Your task to perform on an android device: View the shopping cart on bestbuy. Add "logitech g910" to the cart on bestbuy Image 0: 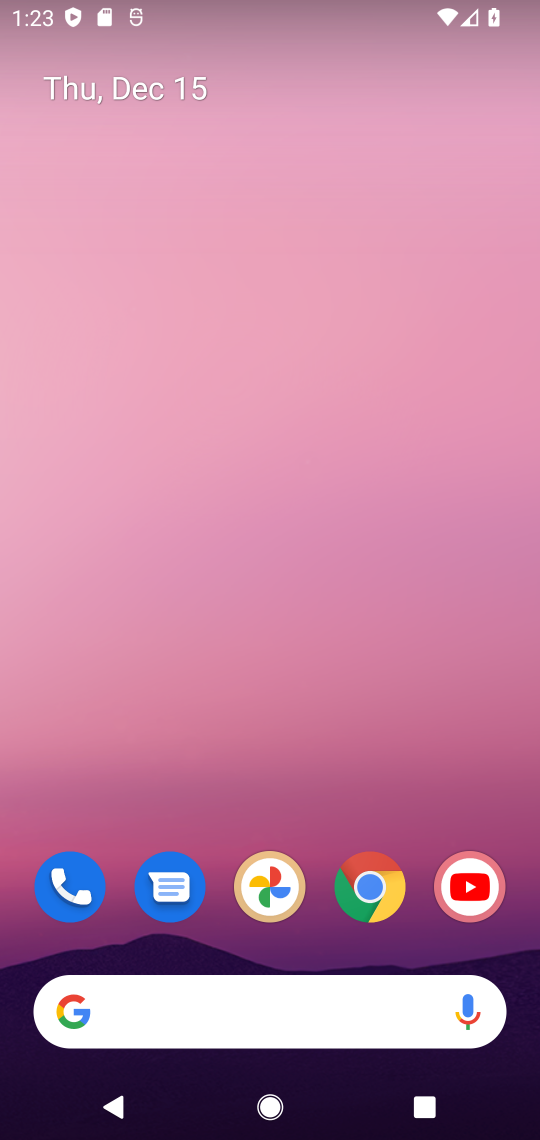
Step 0: click (362, 884)
Your task to perform on an android device: View the shopping cart on bestbuy. Add "logitech g910" to the cart on bestbuy Image 1: 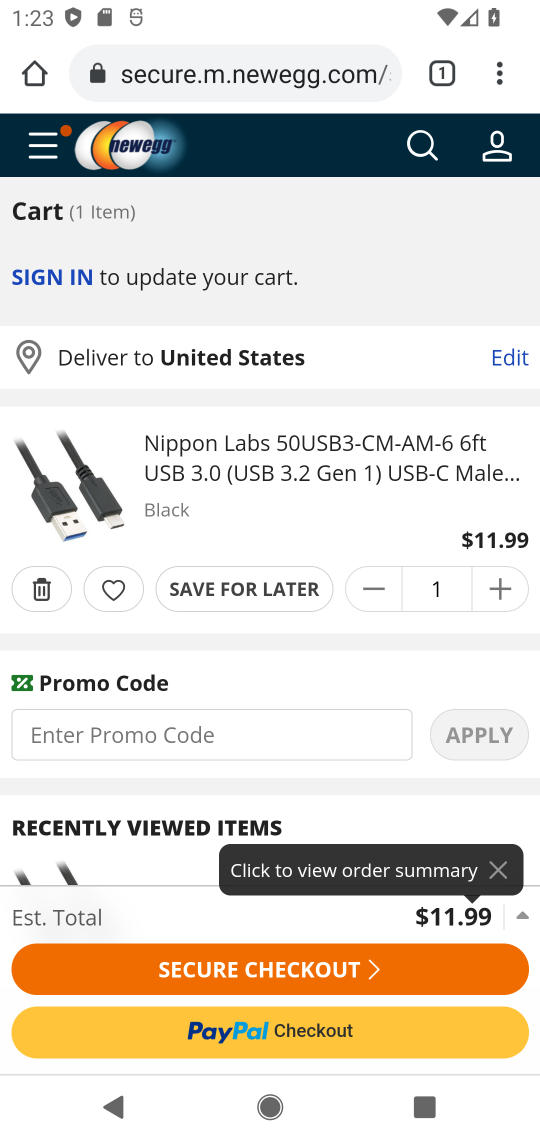
Step 1: click (207, 69)
Your task to perform on an android device: View the shopping cart on bestbuy. Add "logitech g910" to the cart on bestbuy Image 2: 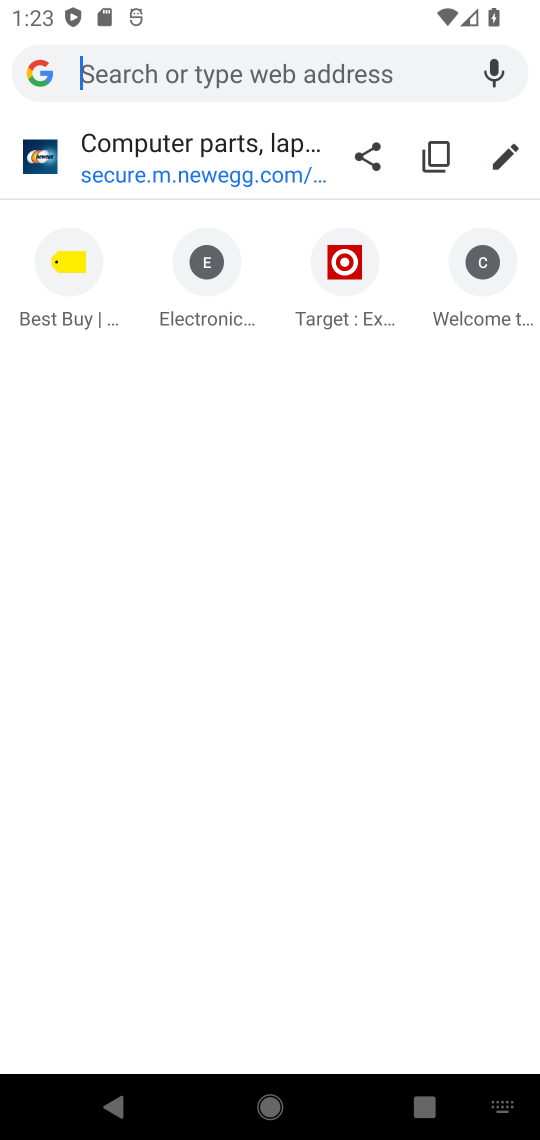
Step 2: click (43, 316)
Your task to perform on an android device: View the shopping cart on bestbuy. Add "logitech g910" to the cart on bestbuy Image 3: 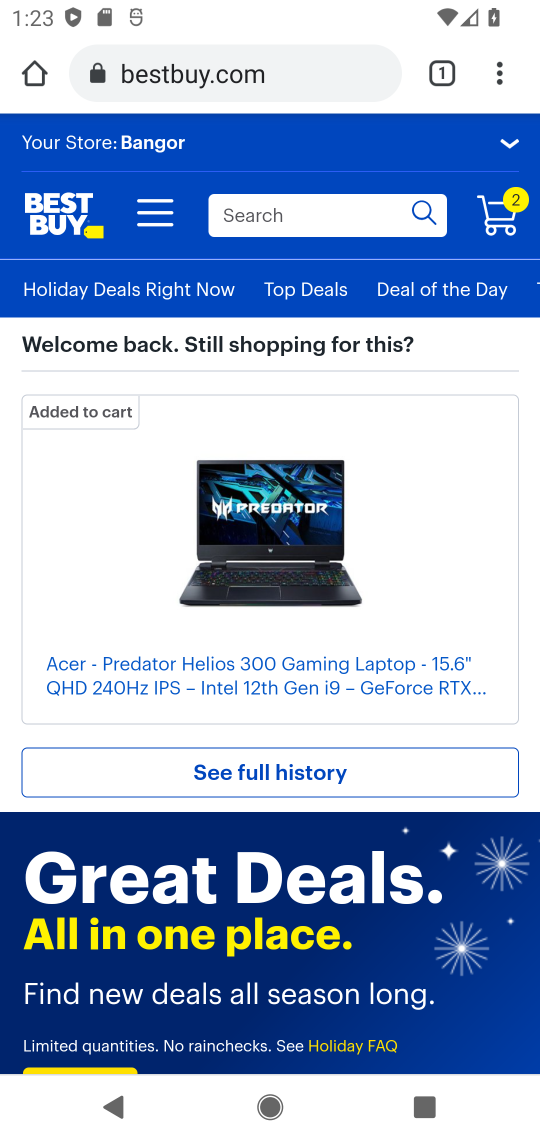
Step 3: click (487, 230)
Your task to perform on an android device: View the shopping cart on bestbuy. Add "logitech g910" to the cart on bestbuy Image 4: 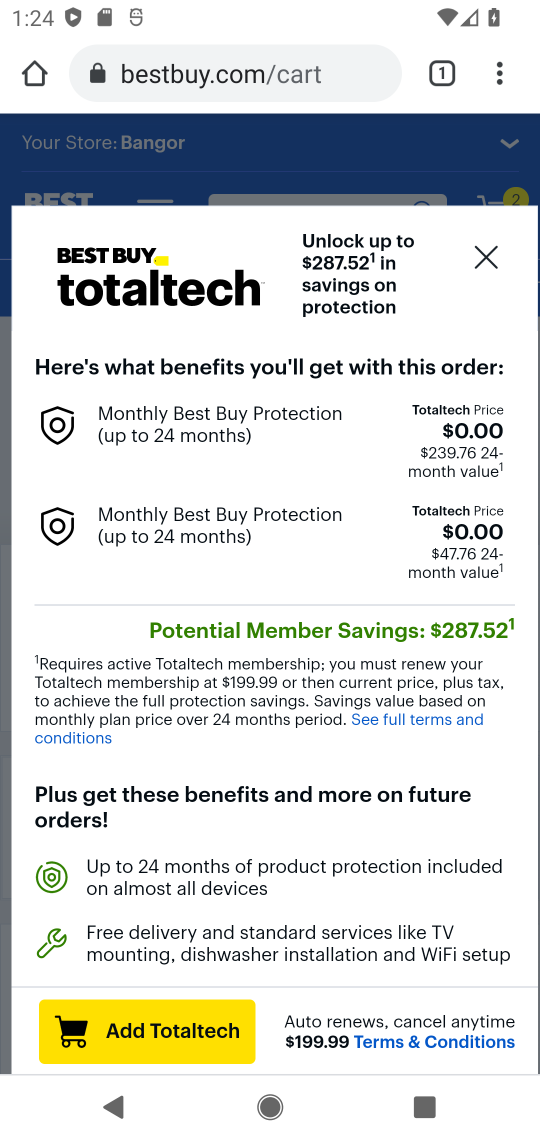
Step 4: click (490, 265)
Your task to perform on an android device: View the shopping cart on bestbuy. Add "logitech g910" to the cart on bestbuy Image 5: 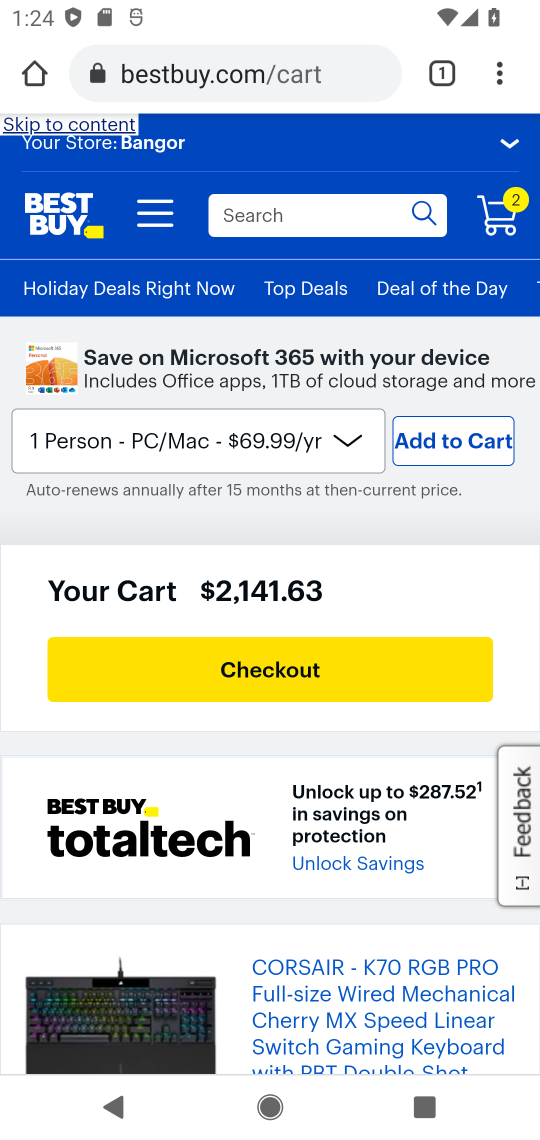
Step 5: click (246, 211)
Your task to perform on an android device: View the shopping cart on bestbuy. Add "logitech g910" to the cart on bestbuy Image 6: 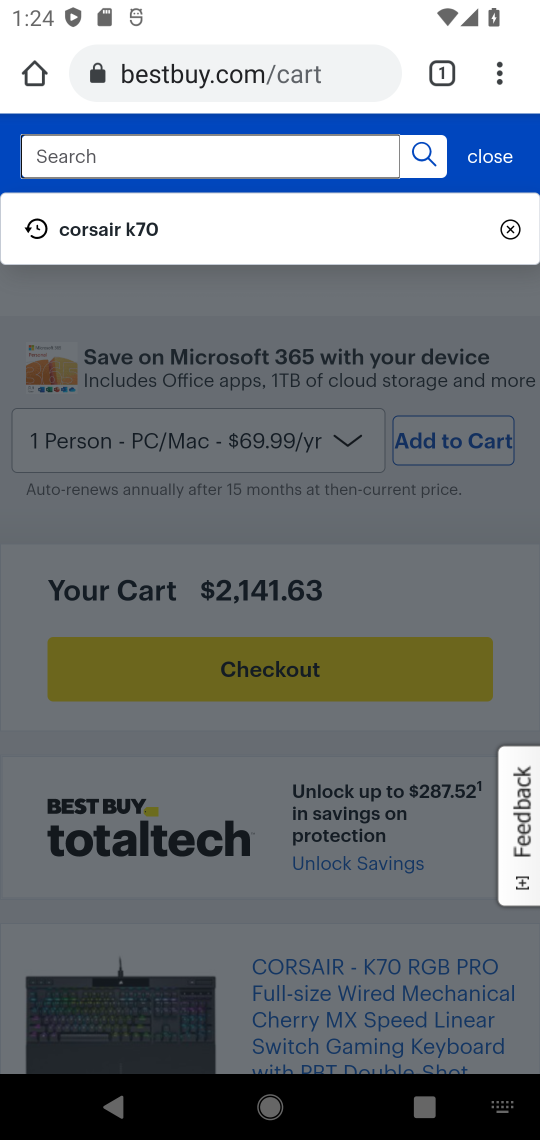
Step 6: type "logitech g910"
Your task to perform on an android device: View the shopping cart on bestbuy. Add "logitech g910" to the cart on bestbuy Image 7: 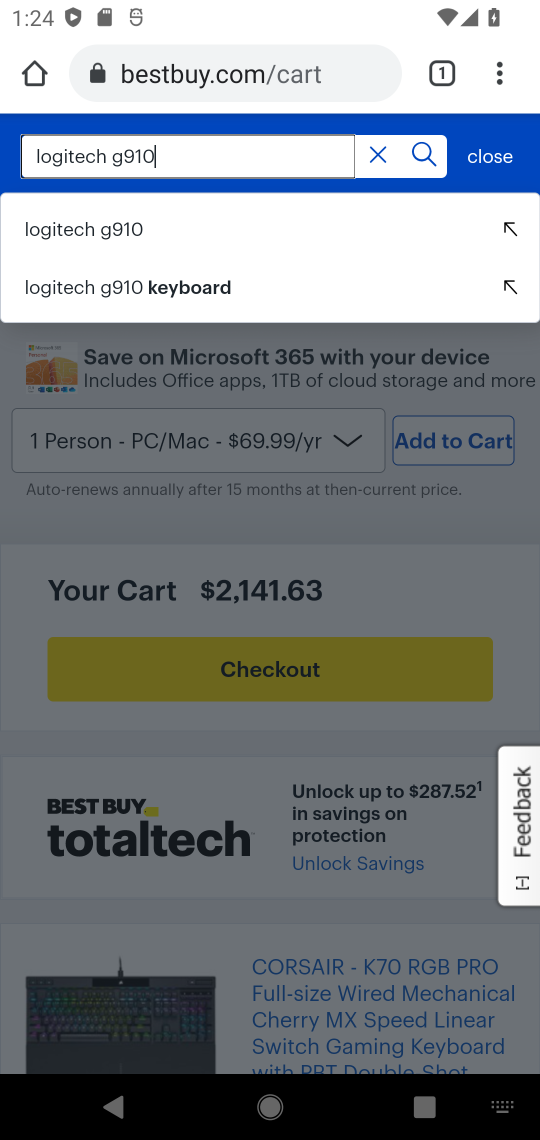
Step 7: click (102, 232)
Your task to perform on an android device: View the shopping cart on bestbuy. Add "logitech g910" to the cart on bestbuy Image 8: 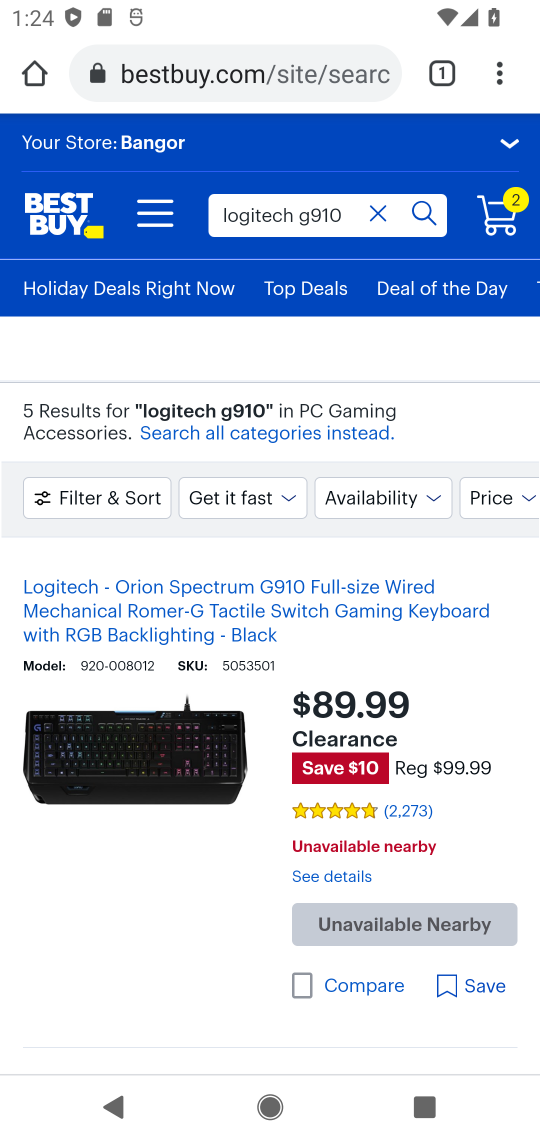
Step 8: task complete